Your task to perform on an android device: Open Google Chrome and click the shortcut for Amazon.com Image 0: 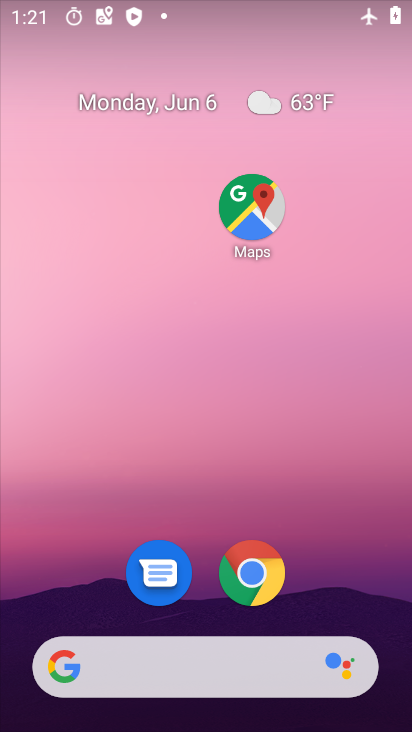
Step 0: drag from (259, 513) to (246, 0)
Your task to perform on an android device: Open Google Chrome and click the shortcut for Amazon.com Image 1: 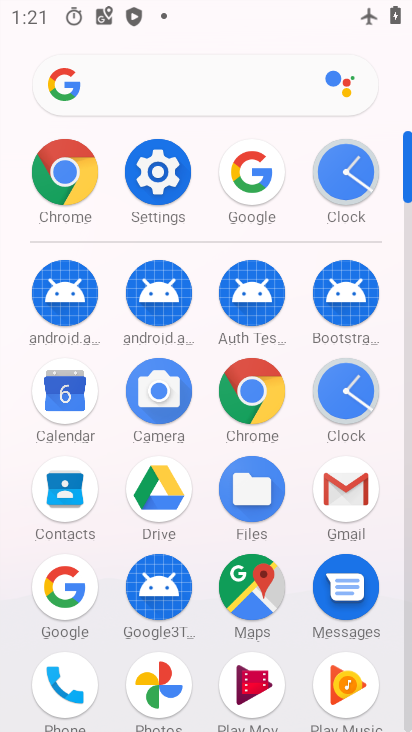
Step 1: click (259, 408)
Your task to perform on an android device: Open Google Chrome and click the shortcut for Amazon.com Image 2: 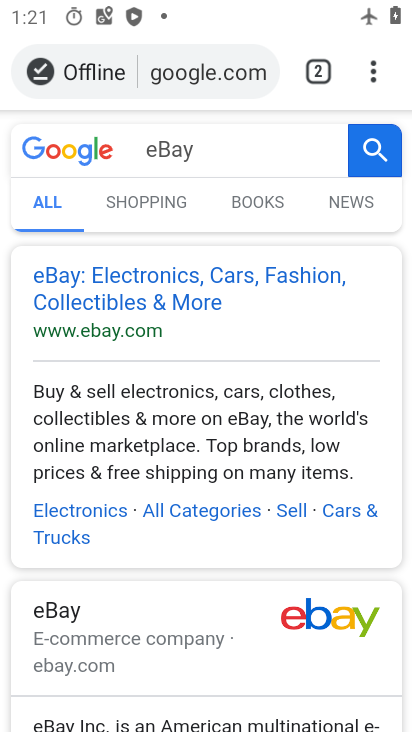
Step 2: click (313, 73)
Your task to perform on an android device: Open Google Chrome and click the shortcut for Amazon.com Image 3: 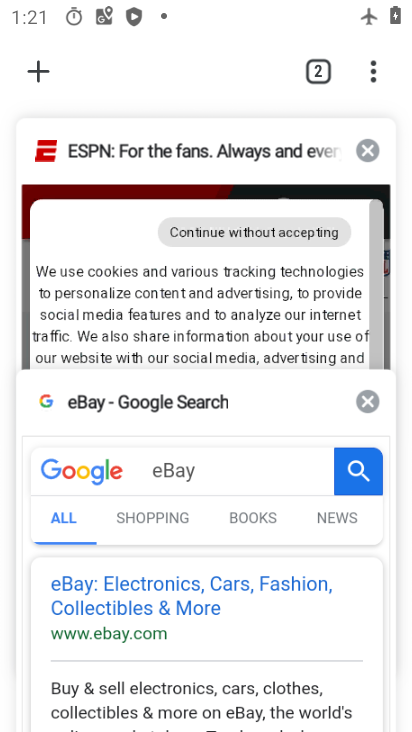
Step 3: click (37, 77)
Your task to perform on an android device: Open Google Chrome and click the shortcut for Amazon.com Image 4: 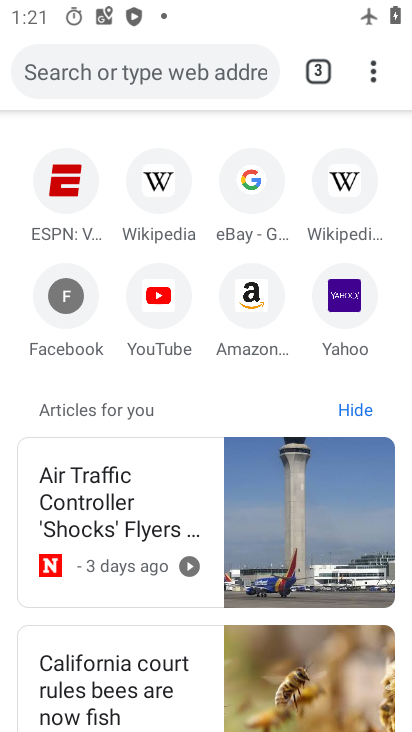
Step 4: click (227, 323)
Your task to perform on an android device: Open Google Chrome and click the shortcut for Amazon.com Image 5: 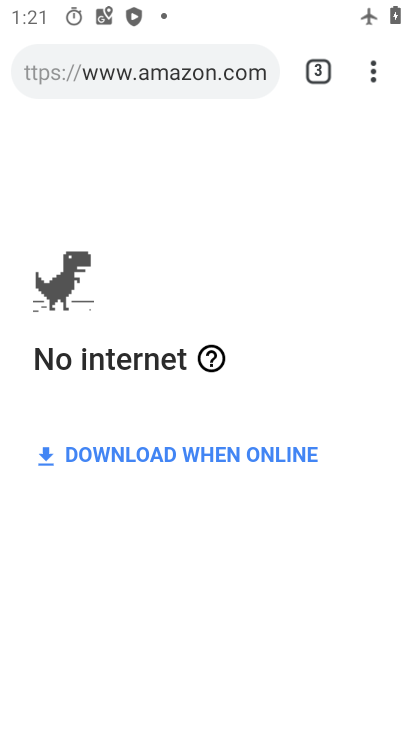
Step 5: task complete